Your task to perform on an android device: When is my next meeting? Image 0: 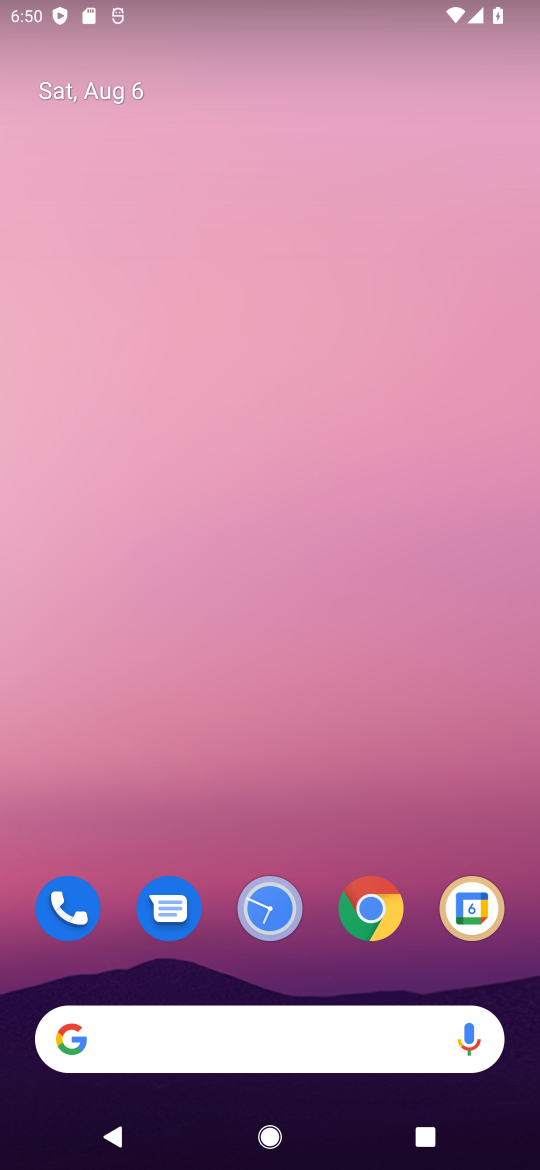
Step 0: click (484, 908)
Your task to perform on an android device: When is my next meeting? Image 1: 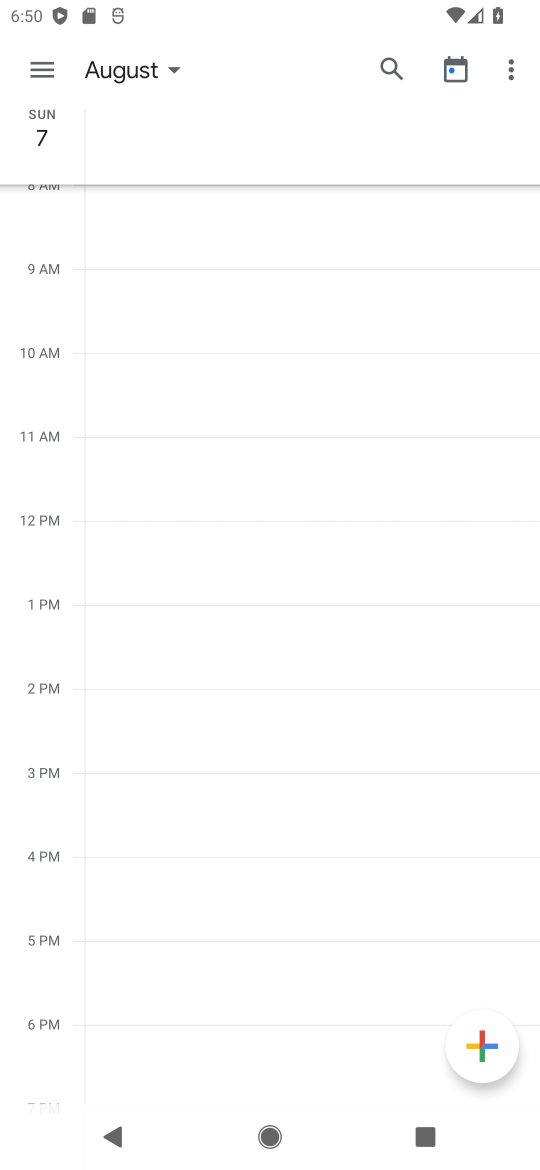
Step 1: click (48, 67)
Your task to perform on an android device: When is my next meeting? Image 2: 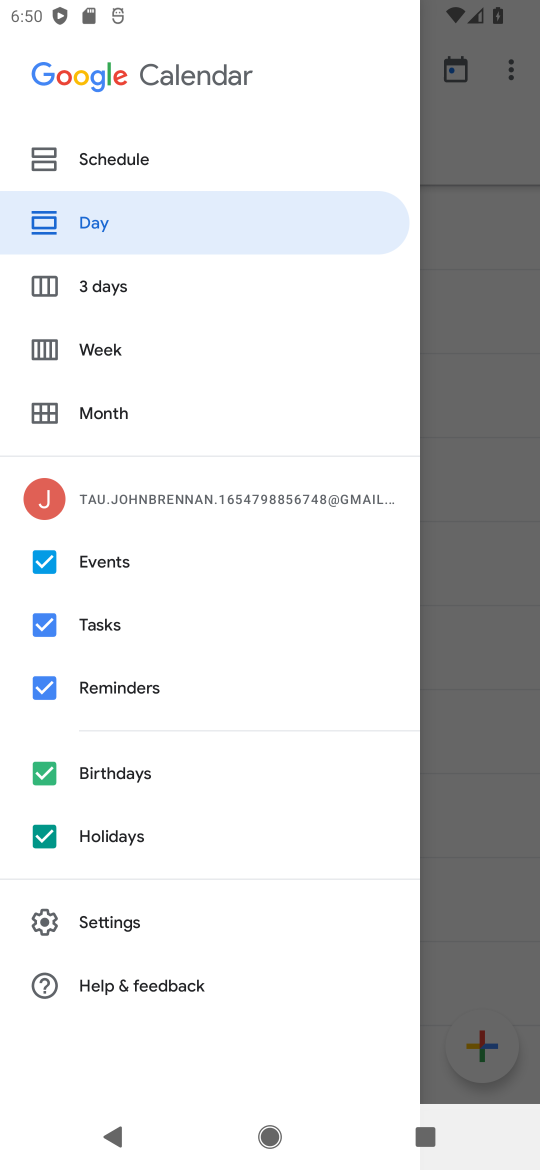
Step 2: click (107, 154)
Your task to perform on an android device: When is my next meeting? Image 3: 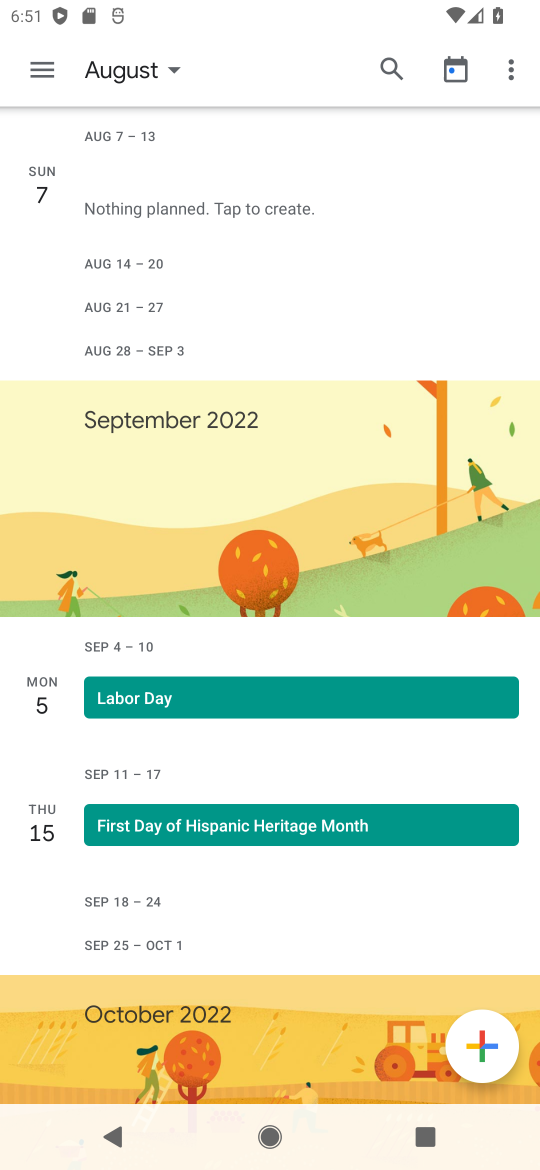
Step 3: task complete